Your task to perform on an android device: Go to Yahoo.com Image 0: 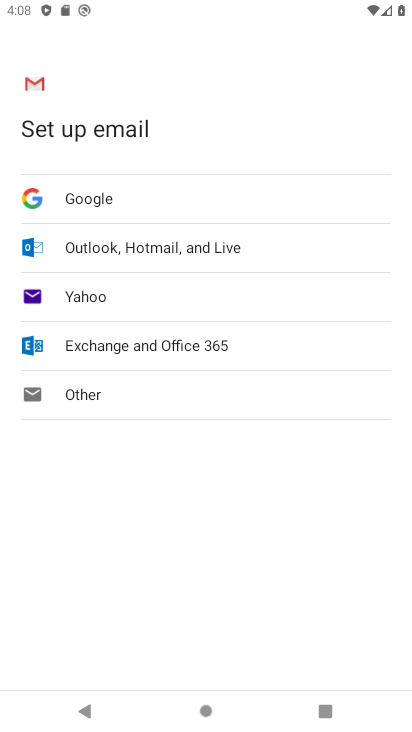
Step 0: press home button
Your task to perform on an android device: Go to Yahoo.com Image 1: 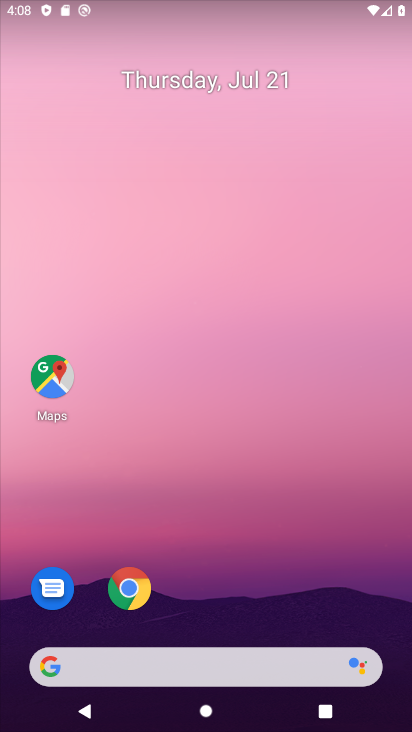
Step 1: click (223, 667)
Your task to perform on an android device: Go to Yahoo.com Image 2: 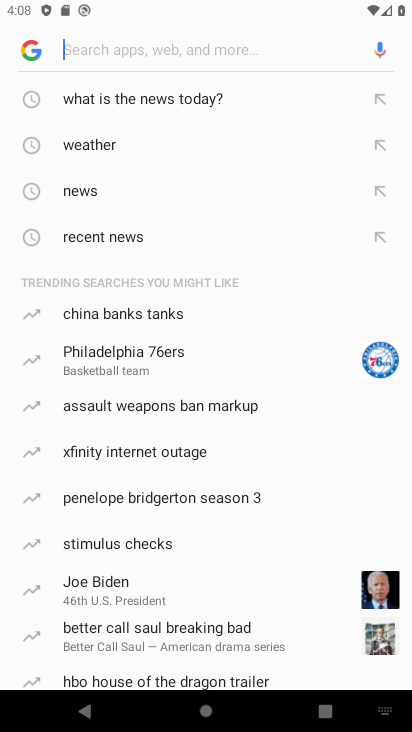
Step 2: type "Yahoo.com"
Your task to perform on an android device: Go to Yahoo.com Image 3: 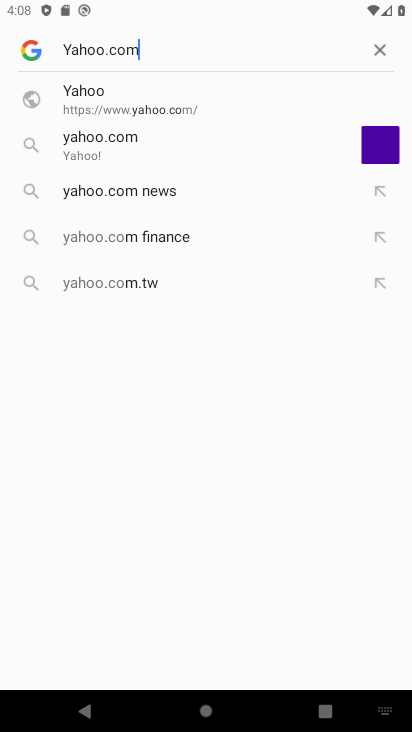
Step 3: press enter
Your task to perform on an android device: Go to Yahoo.com Image 4: 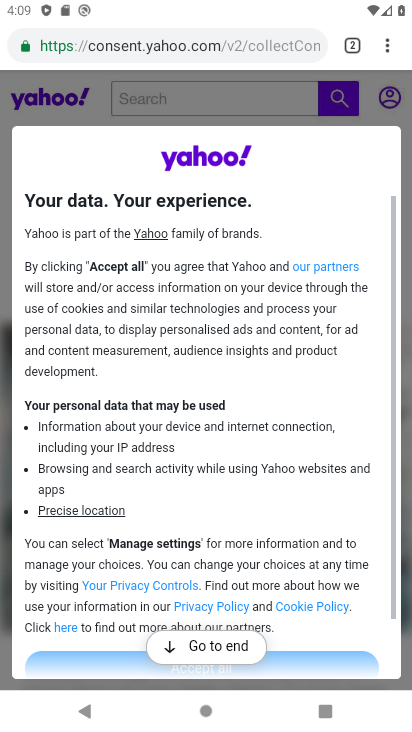
Step 4: task complete